Your task to perform on an android device: What's US dollar exchange rate against the Japanese Yen? Image 0: 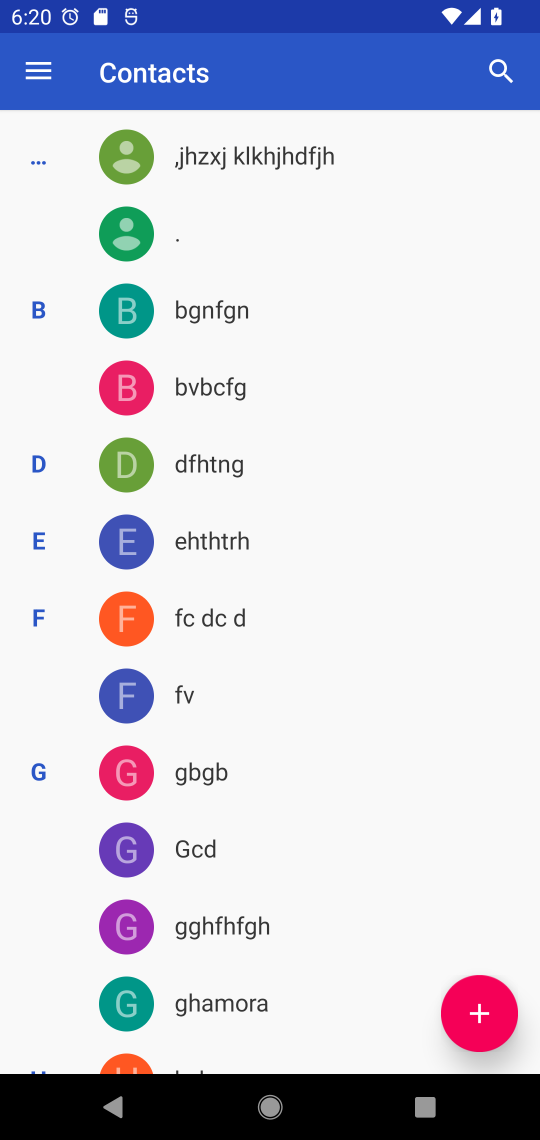
Step 0: press home button
Your task to perform on an android device: What's US dollar exchange rate against the Japanese Yen? Image 1: 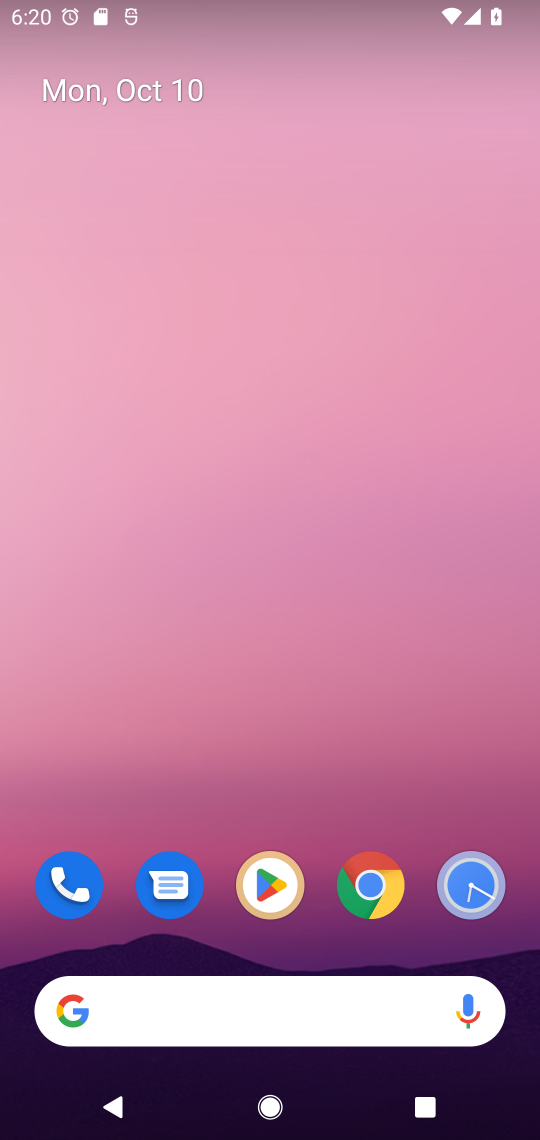
Step 1: click (366, 863)
Your task to perform on an android device: What's US dollar exchange rate against the Japanese Yen? Image 2: 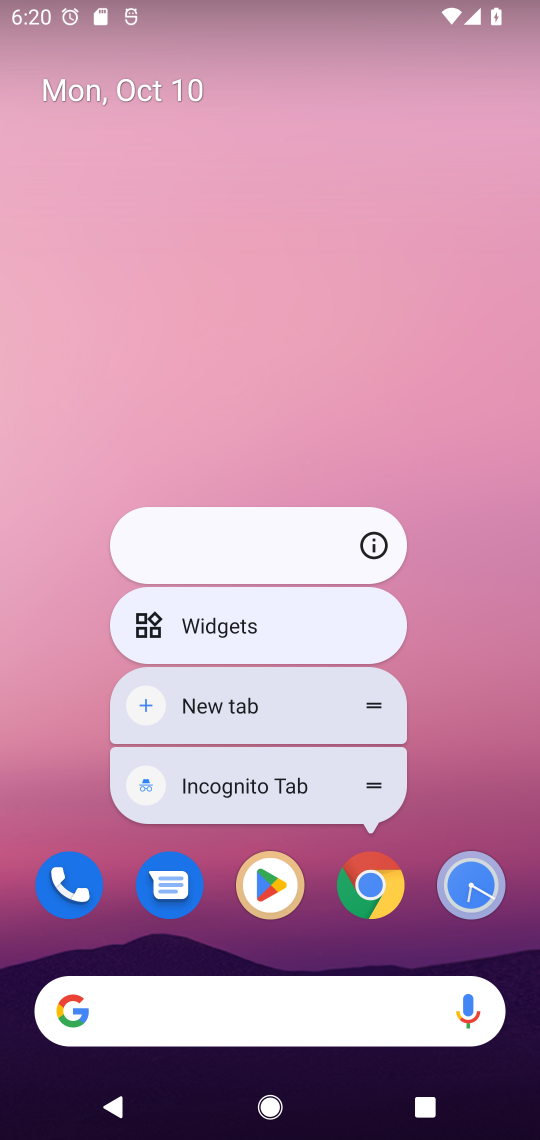
Step 2: click (369, 889)
Your task to perform on an android device: What's US dollar exchange rate against the Japanese Yen? Image 3: 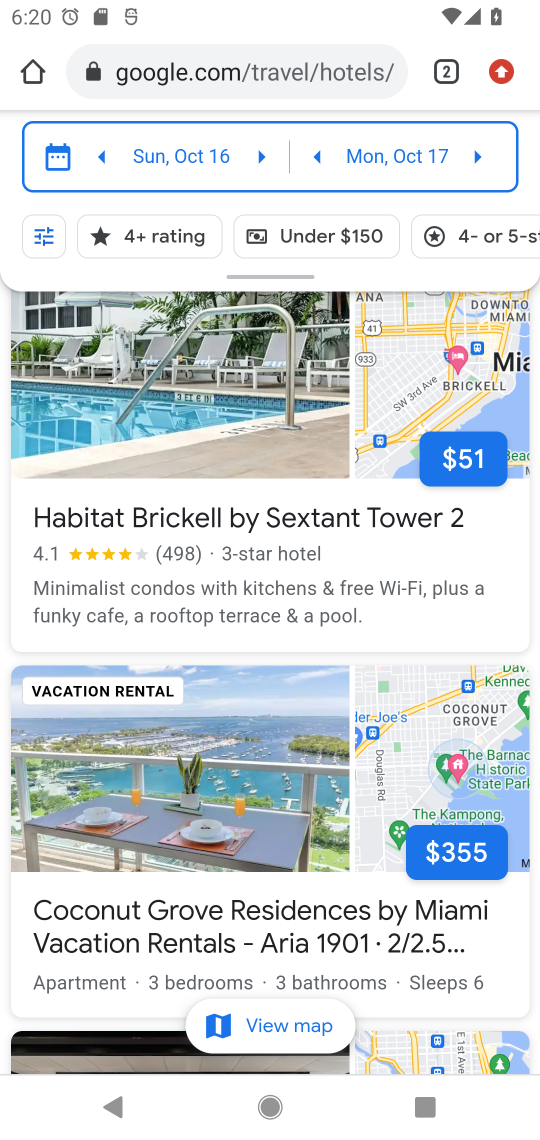
Step 3: click (190, 75)
Your task to perform on an android device: What's US dollar exchange rate against the Japanese Yen? Image 4: 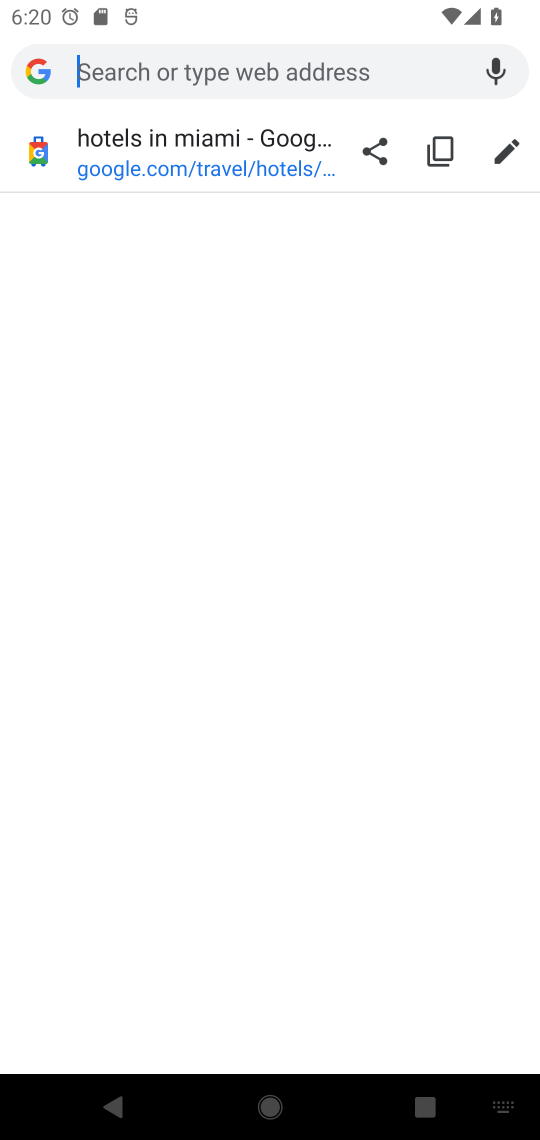
Step 4: type "US dollar exchange rate against the Japanese Yen"
Your task to perform on an android device: What's US dollar exchange rate against the Japanese Yen? Image 5: 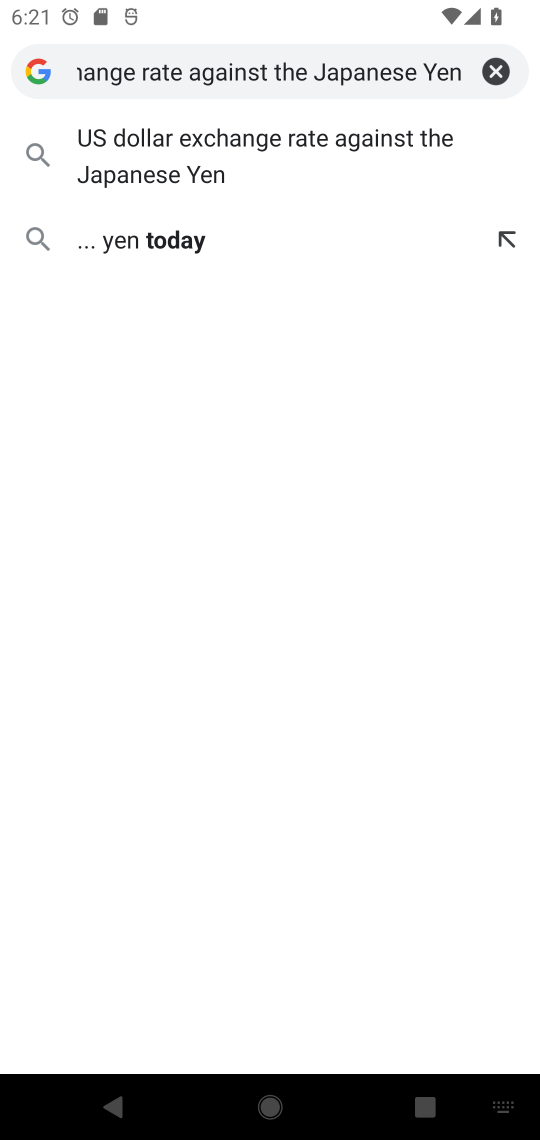
Step 5: click (325, 134)
Your task to perform on an android device: What's US dollar exchange rate against the Japanese Yen? Image 6: 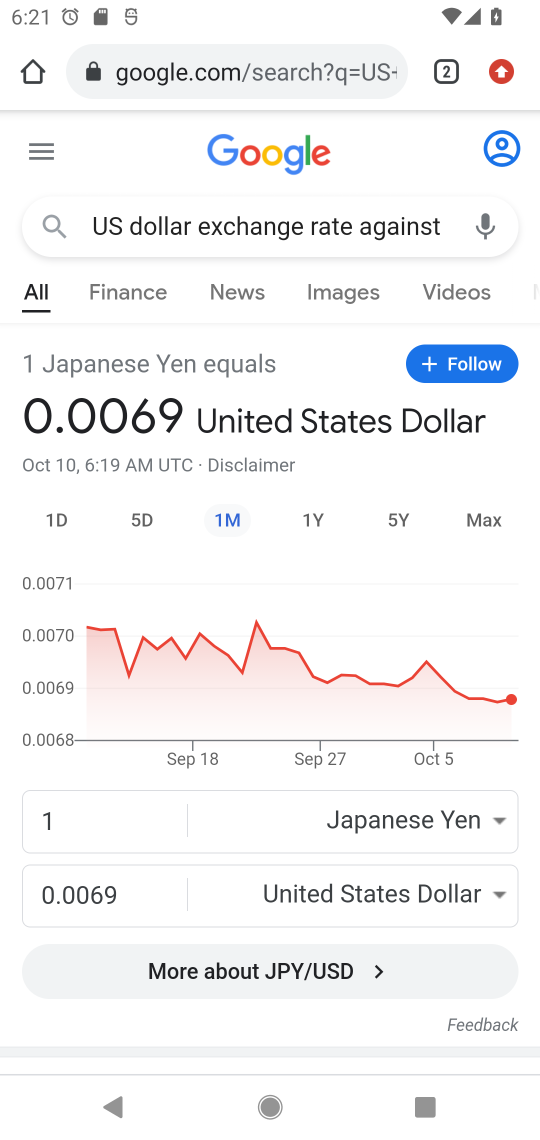
Step 6: task complete